Your task to perform on an android device: Open wifi settings Image 0: 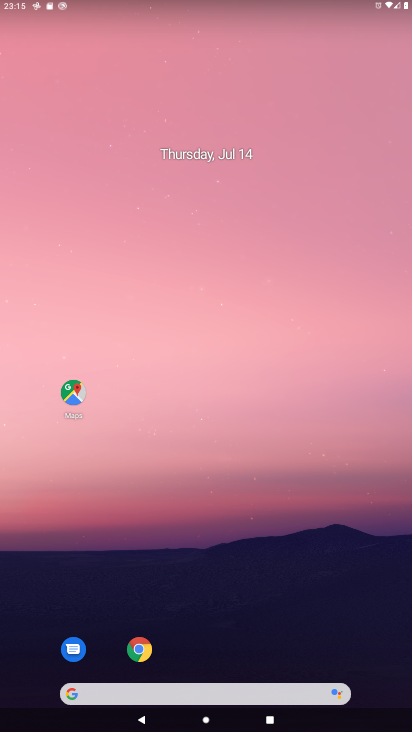
Step 0: drag from (174, 699) to (363, 106)
Your task to perform on an android device: Open wifi settings Image 1: 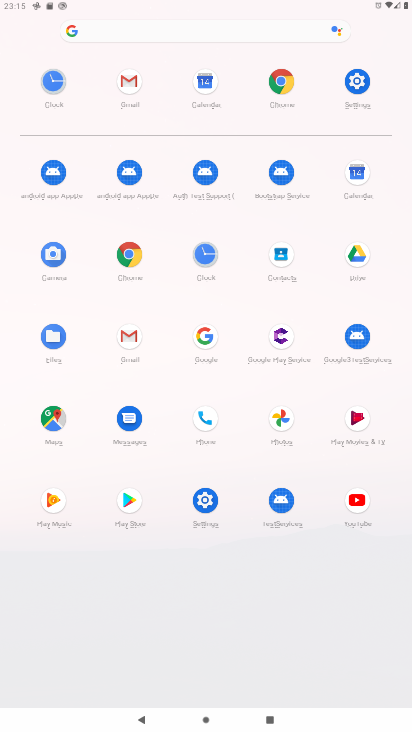
Step 1: click (355, 84)
Your task to perform on an android device: Open wifi settings Image 2: 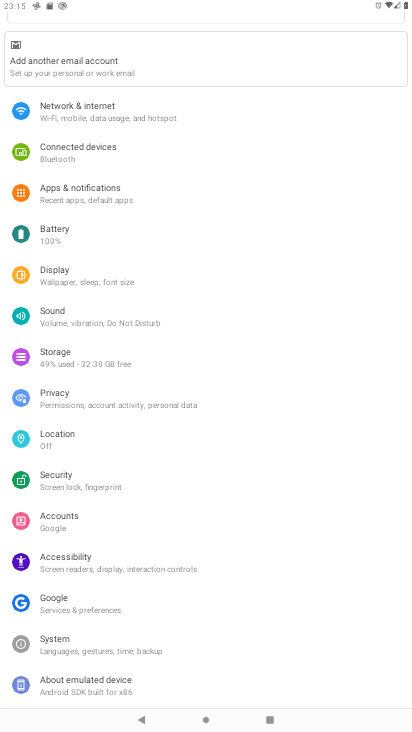
Step 2: click (136, 127)
Your task to perform on an android device: Open wifi settings Image 3: 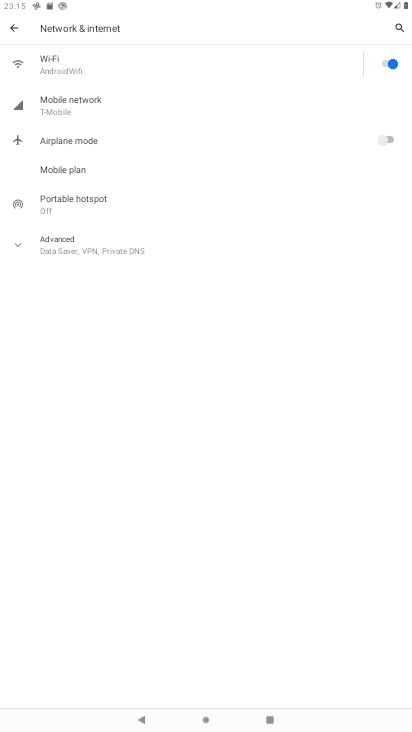
Step 3: click (137, 64)
Your task to perform on an android device: Open wifi settings Image 4: 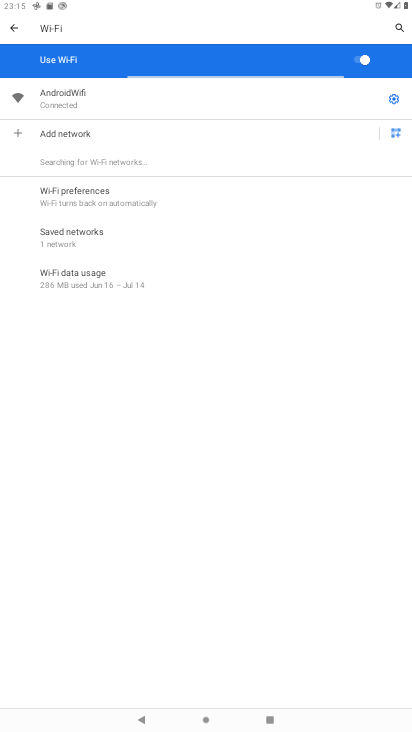
Step 4: click (394, 100)
Your task to perform on an android device: Open wifi settings Image 5: 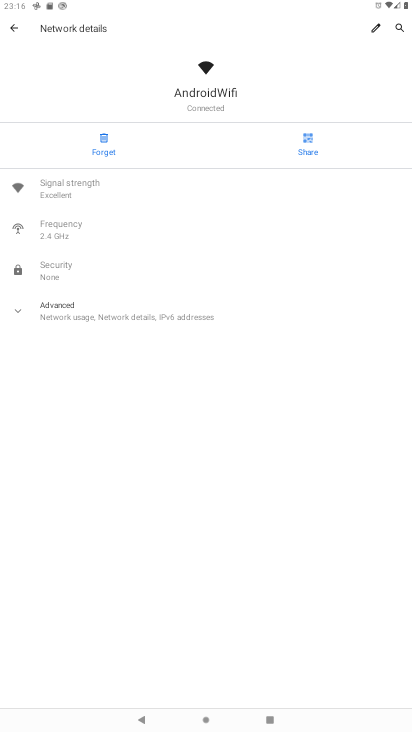
Step 5: task complete